Your task to perform on an android device: delete browsing data in the chrome app Image 0: 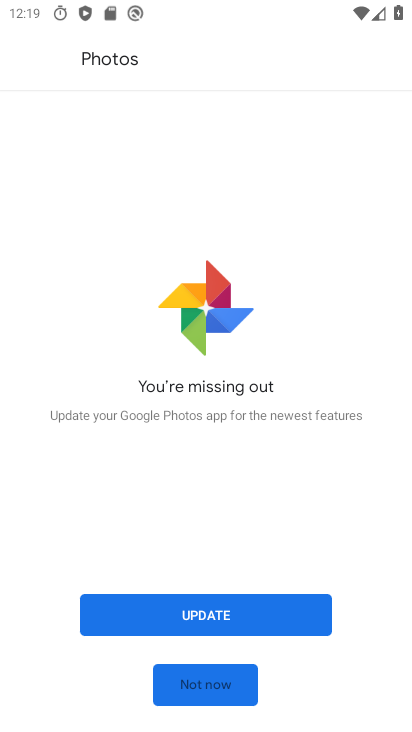
Step 0: click (209, 607)
Your task to perform on an android device: delete browsing data in the chrome app Image 1: 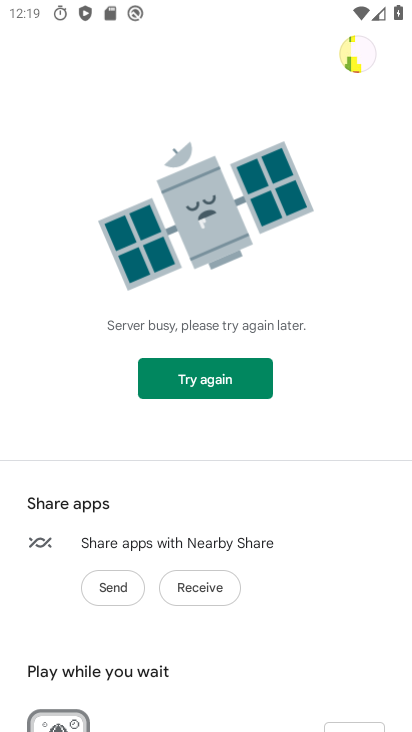
Step 1: click (200, 374)
Your task to perform on an android device: delete browsing data in the chrome app Image 2: 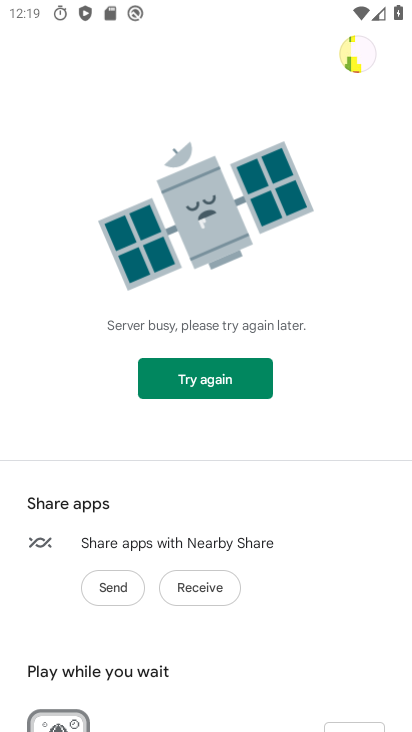
Step 2: click (207, 379)
Your task to perform on an android device: delete browsing data in the chrome app Image 3: 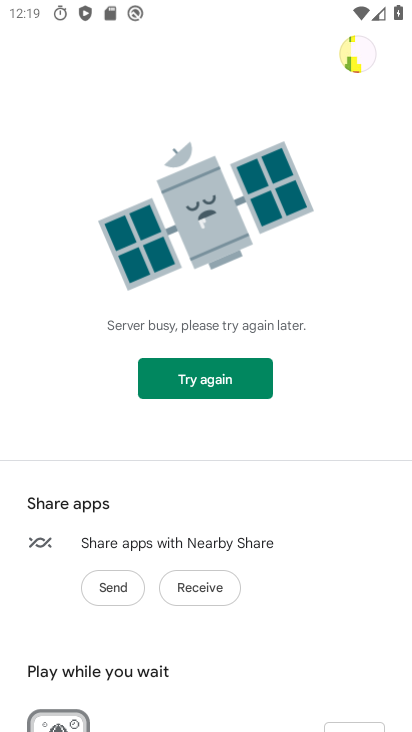
Step 3: press home button
Your task to perform on an android device: delete browsing data in the chrome app Image 4: 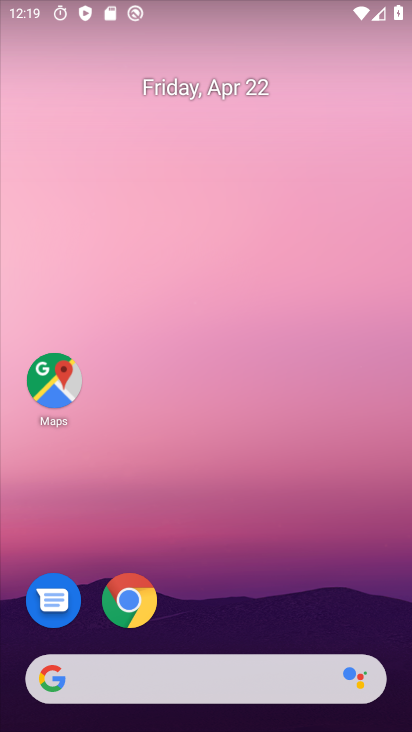
Step 4: click (132, 604)
Your task to perform on an android device: delete browsing data in the chrome app Image 5: 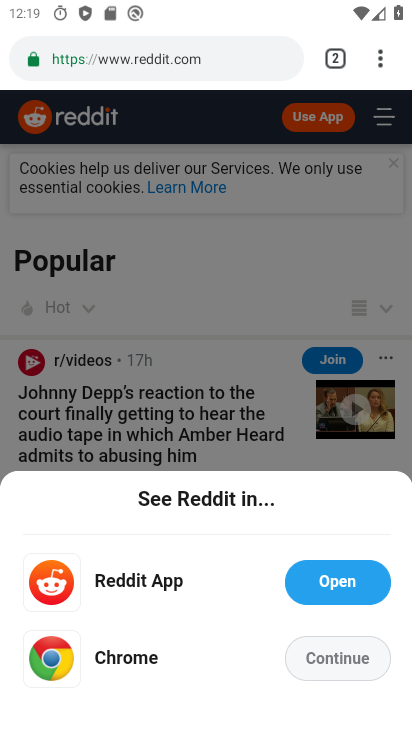
Step 5: click (325, 651)
Your task to perform on an android device: delete browsing data in the chrome app Image 6: 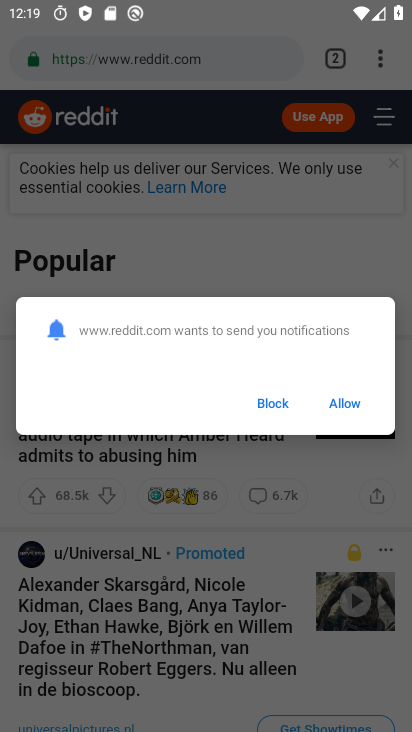
Step 6: click (269, 406)
Your task to perform on an android device: delete browsing data in the chrome app Image 7: 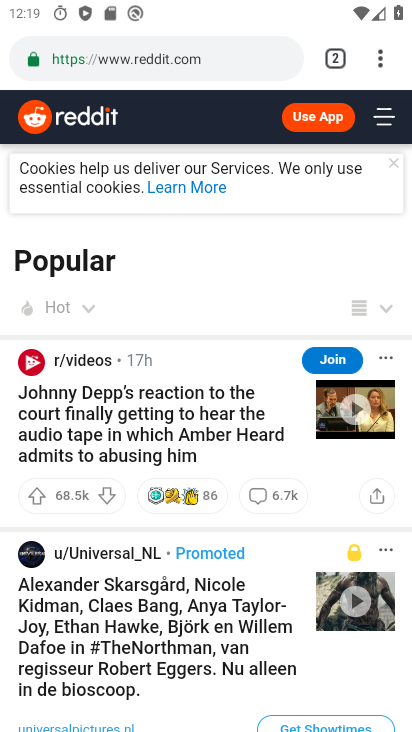
Step 7: click (379, 68)
Your task to perform on an android device: delete browsing data in the chrome app Image 8: 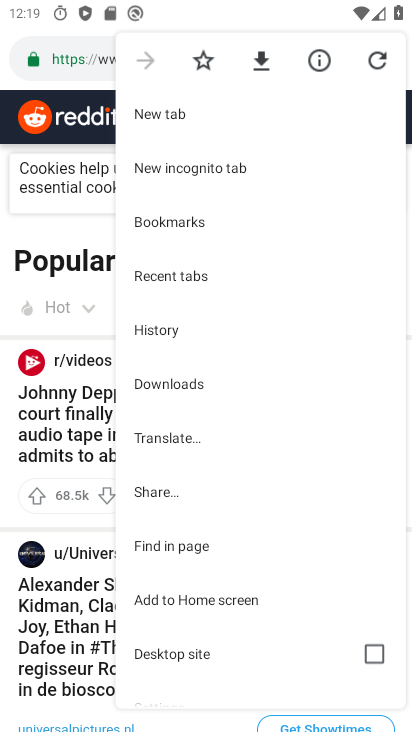
Step 8: click (175, 334)
Your task to perform on an android device: delete browsing data in the chrome app Image 9: 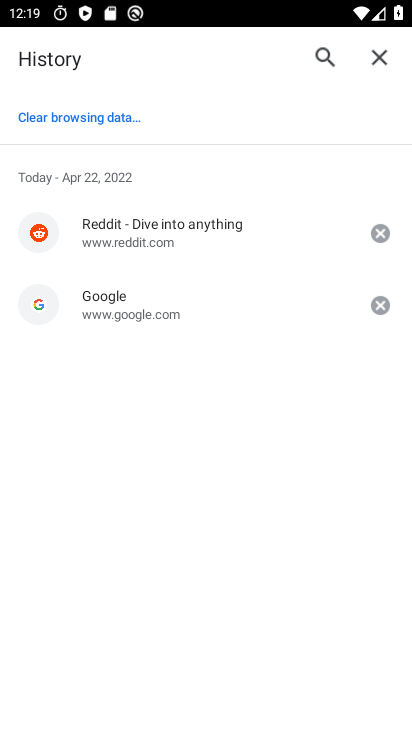
Step 9: click (89, 119)
Your task to perform on an android device: delete browsing data in the chrome app Image 10: 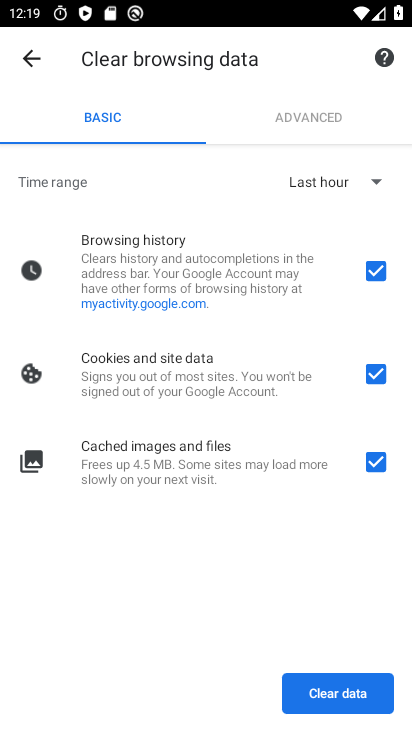
Step 10: click (336, 707)
Your task to perform on an android device: delete browsing data in the chrome app Image 11: 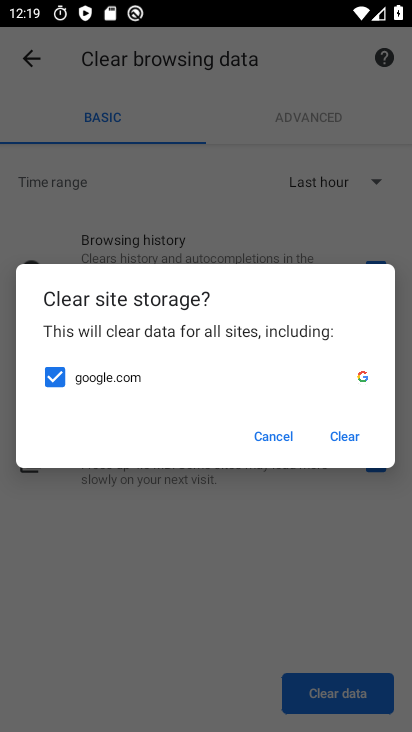
Step 11: click (344, 442)
Your task to perform on an android device: delete browsing data in the chrome app Image 12: 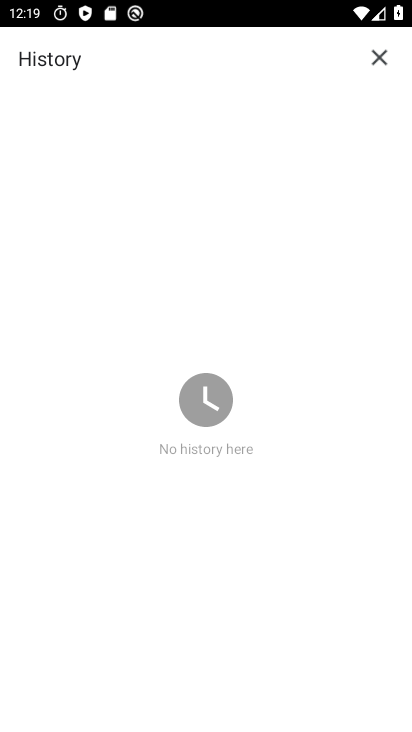
Step 12: task complete